Your task to perform on an android device: Show me the alarms in the clock app Image 0: 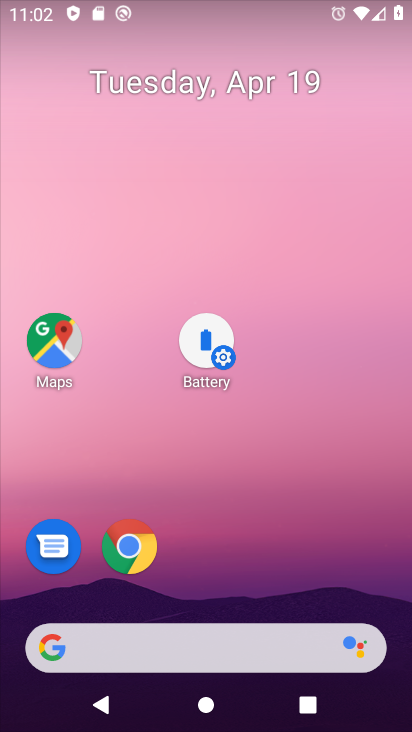
Step 0: drag from (315, 401) to (403, 265)
Your task to perform on an android device: Show me the alarms in the clock app Image 1: 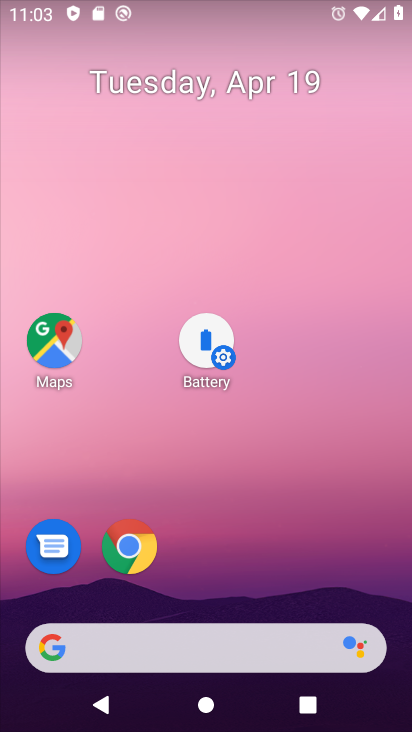
Step 1: drag from (263, 581) to (386, 106)
Your task to perform on an android device: Show me the alarms in the clock app Image 2: 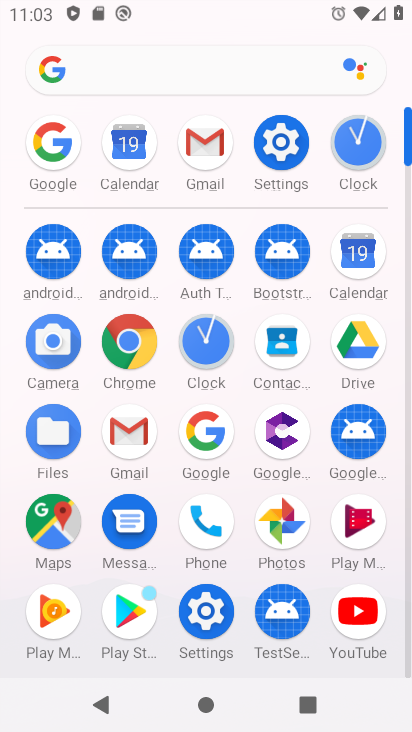
Step 2: click (204, 344)
Your task to perform on an android device: Show me the alarms in the clock app Image 3: 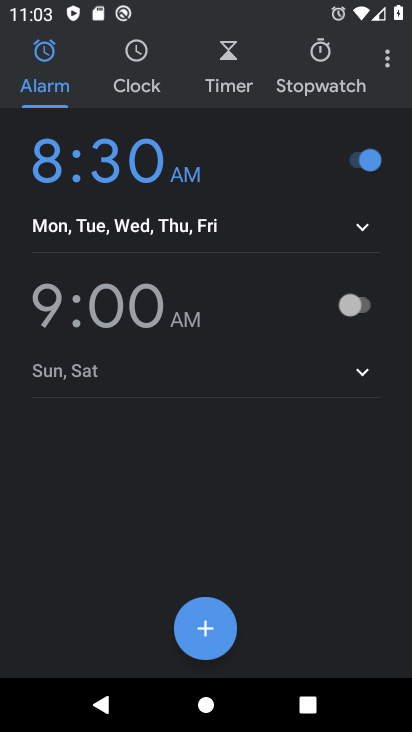
Step 3: task complete